Your task to perform on an android device: Go to location settings Image 0: 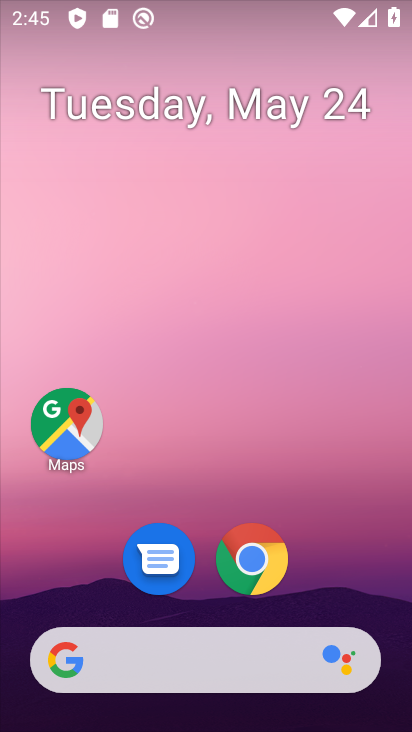
Step 0: drag from (208, 693) to (280, 35)
Your task to perform on an android device: Go to location settings Image 1: 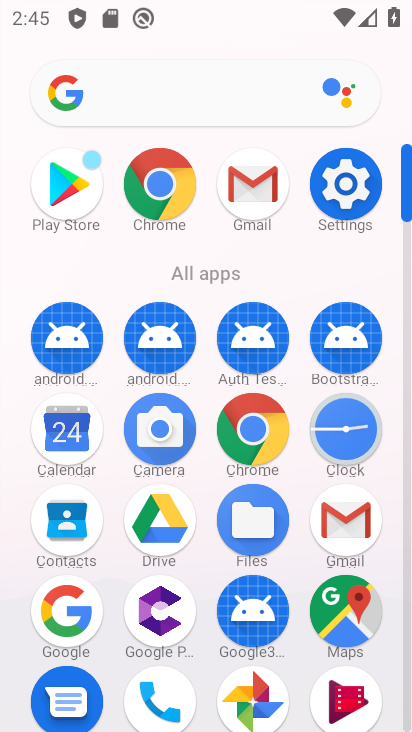
Step 1: click (372, 180)
Your task to perform on an android device: Go to location settings Image 2: 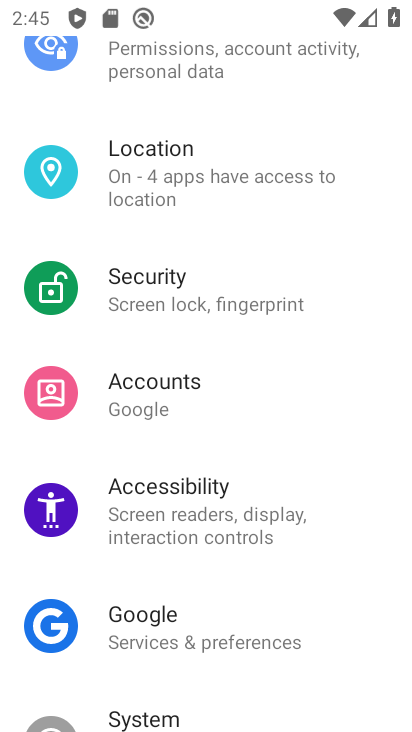
Step 2: click (155, 187)
Your task to perform on an android device: Go to location settings Image 3: 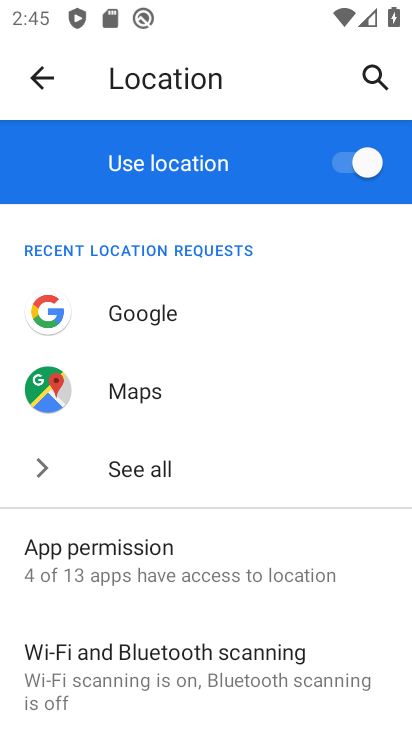
Step 3: task complete